Your task to perform on an android device: toggle airplane mode Image 0: 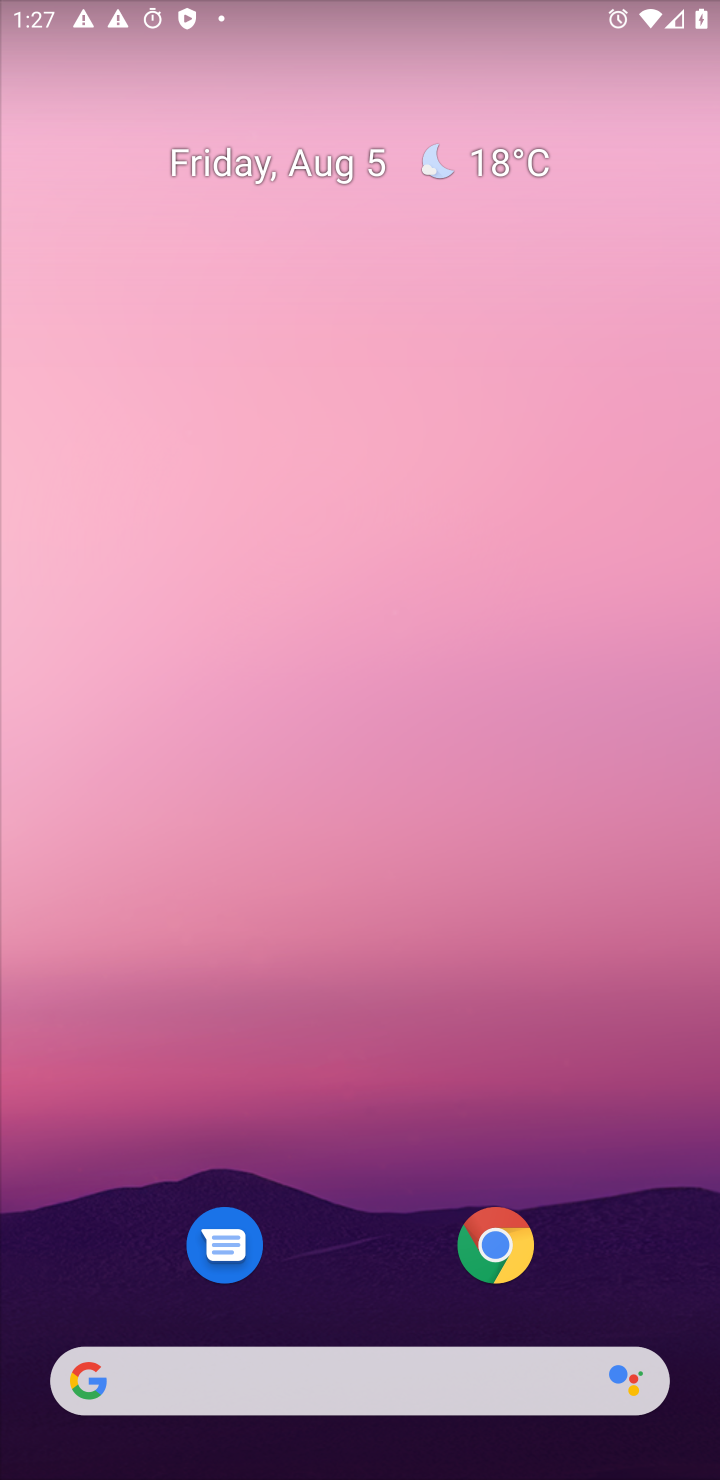
Step 0: press home button
Your task to perform on an android device: toggle airplane mode Image 1: 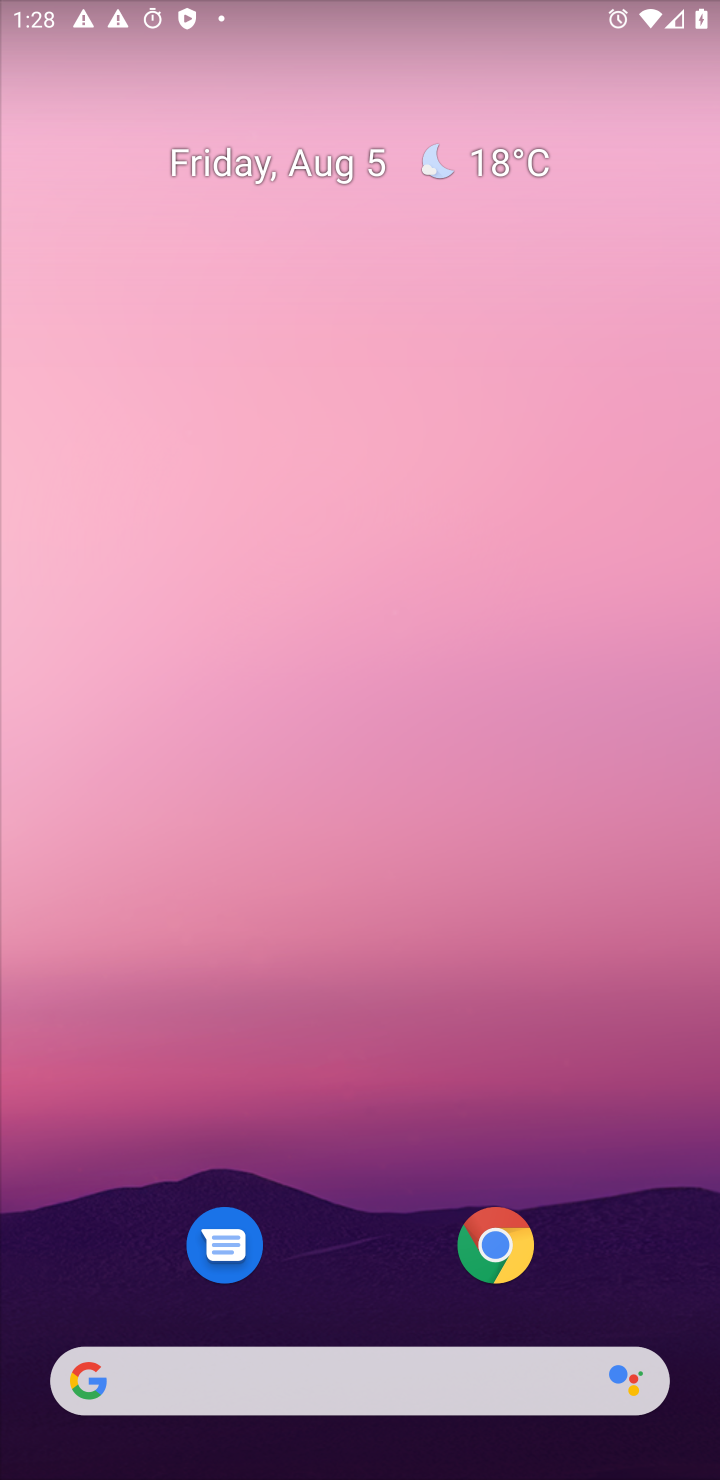
Step 1: drag from (436, 12) to (396, 748)
Your task to perform on an android device: toggle airplane mode Image 2: 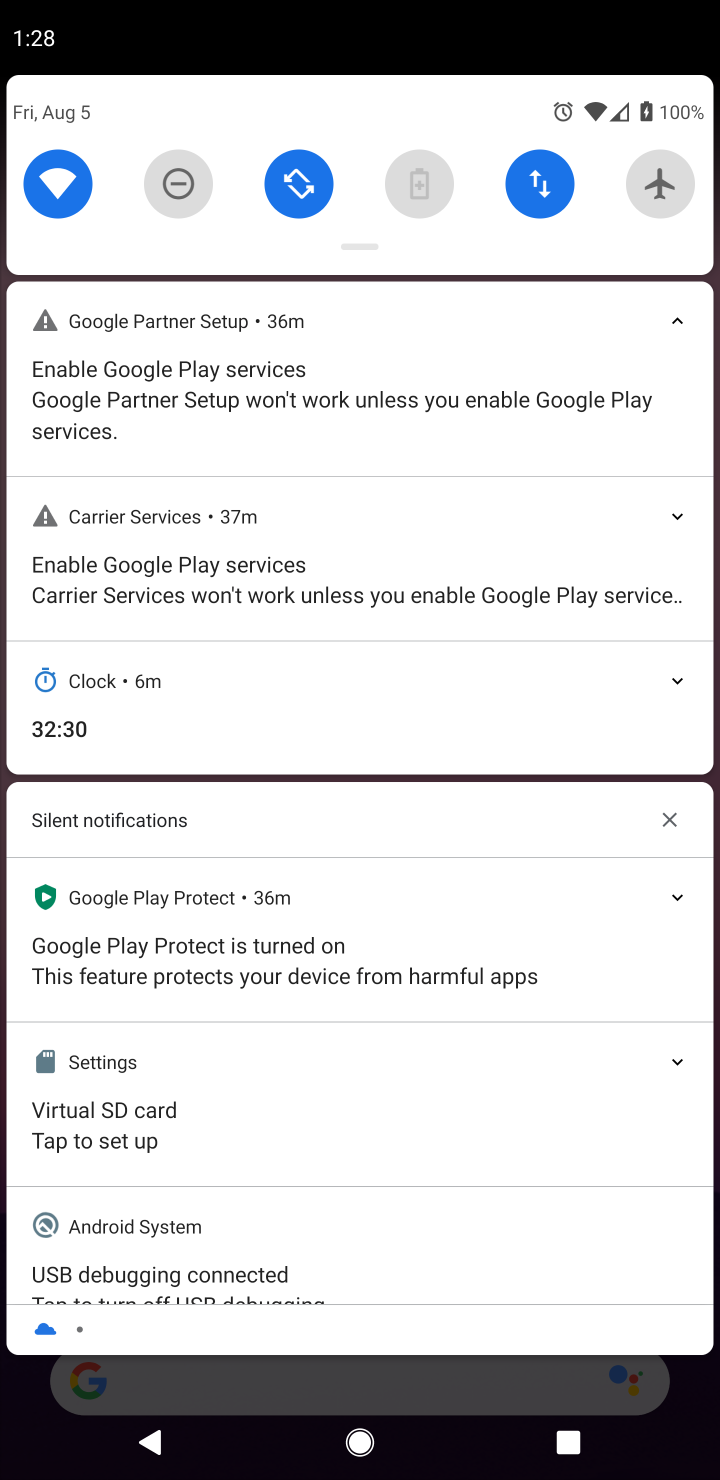
Step 2: click (651, 179)
Your task to perform on an android device: toggle airplane mode Image 3: 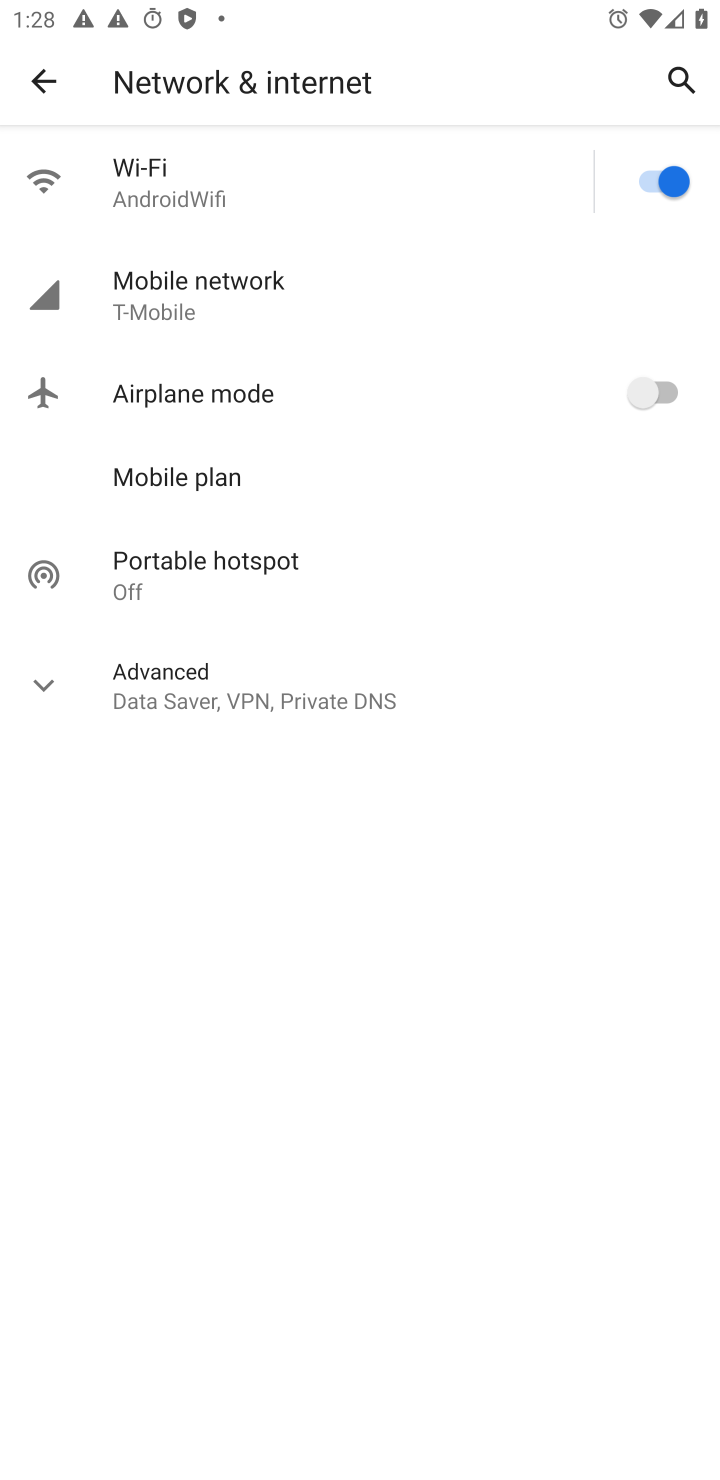
Step 3: click (646, 387)
Your task to perform on an android device: toggle airplane mode Image 4: 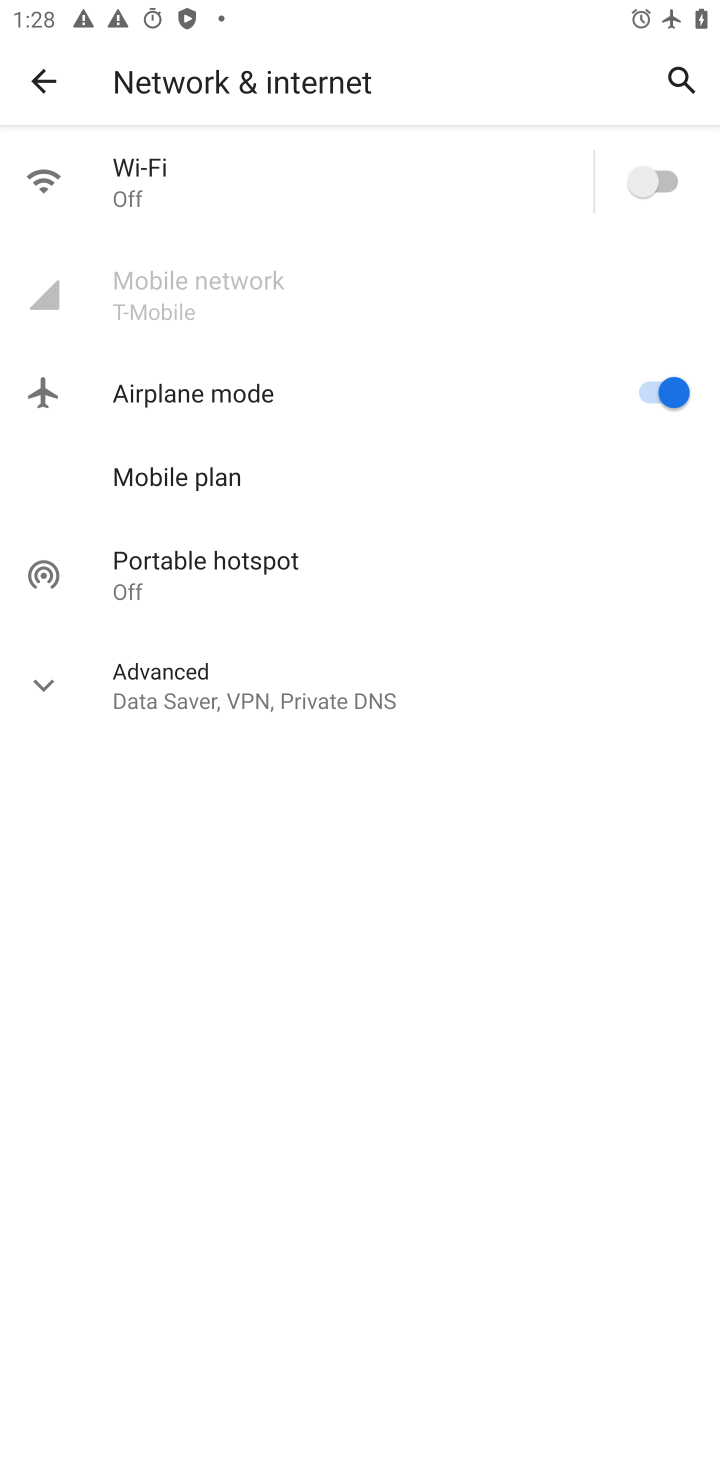
Step 4: task complete